Your task to perform on an android device: When is my next meeting? Image 0: 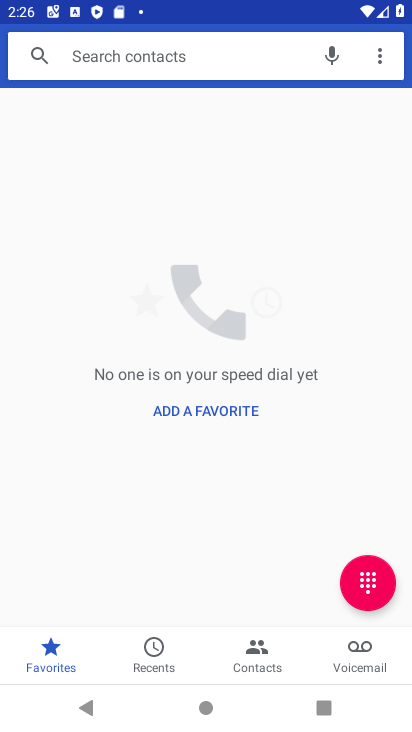
Step 0: press home button
Your task to perform on an android device: When is my next meeting? Image 1: 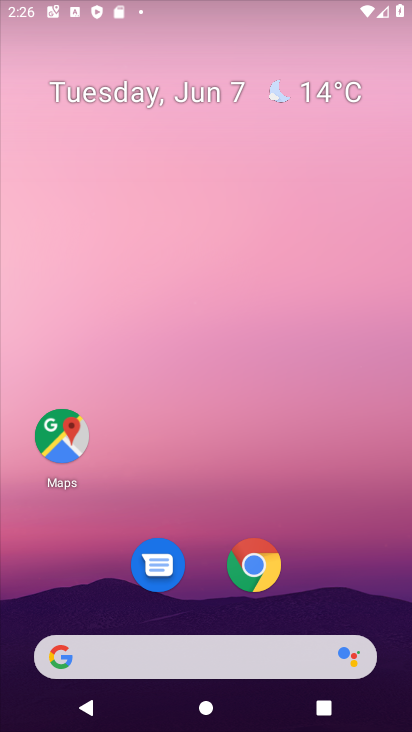
Step 1: drag from (270, 657) to (260, 4)
Your task to perform on an android device: When is my next meeting? Image 2: 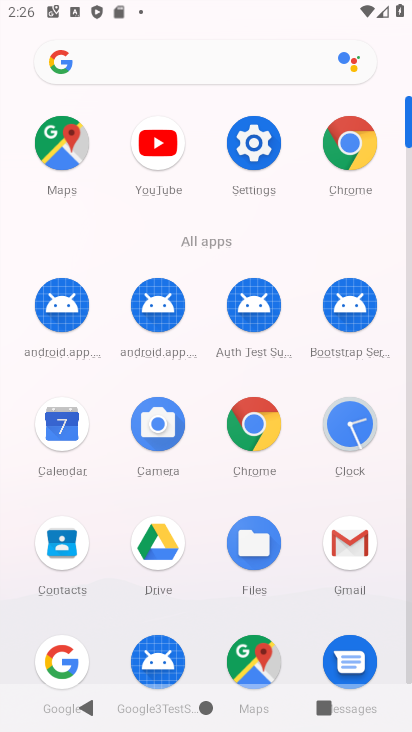
Step 2: click (67, 414)
Your task to perform on an android device: When is my next meeting? Image 3: 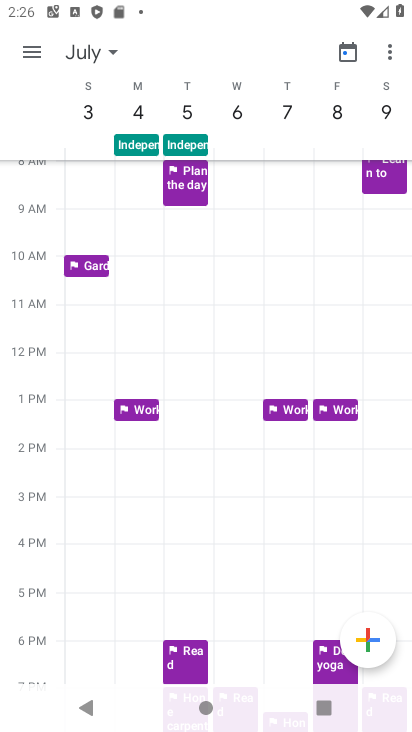
Step 3: click (286, 113)
Your task to perform on an android device: When is my next meeting? Image 4: 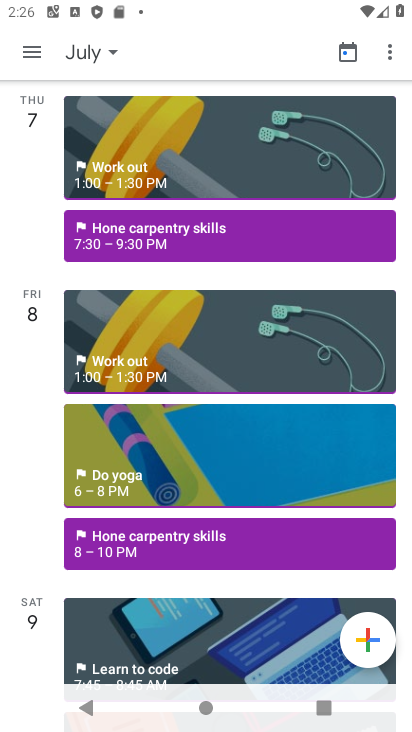
Step 4: task complete